Your task to perform on an android device: change the clock style Image 0: 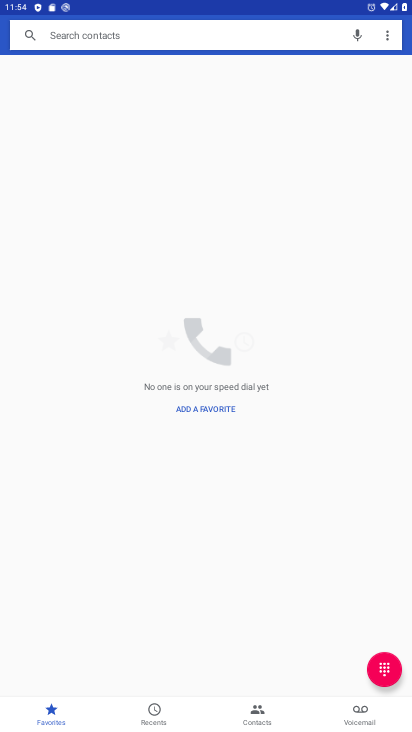
Step 0: press home button
Your task to perform on an android device: change the clock style Image 1: 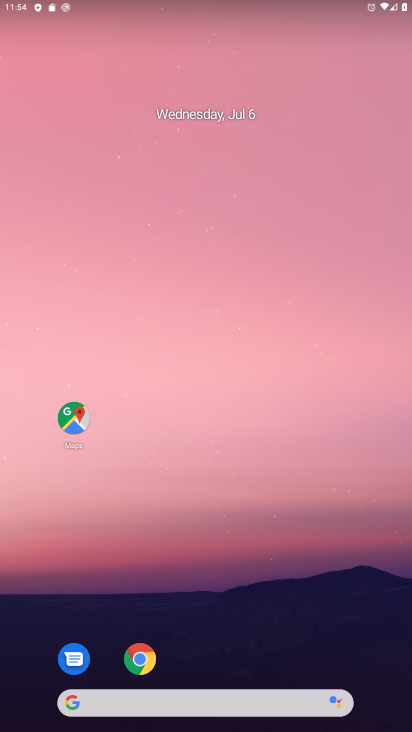
Step 1: drag from (228, 583) to (210, 252)
Your task to perform on an android device: change the clock style Image 2: 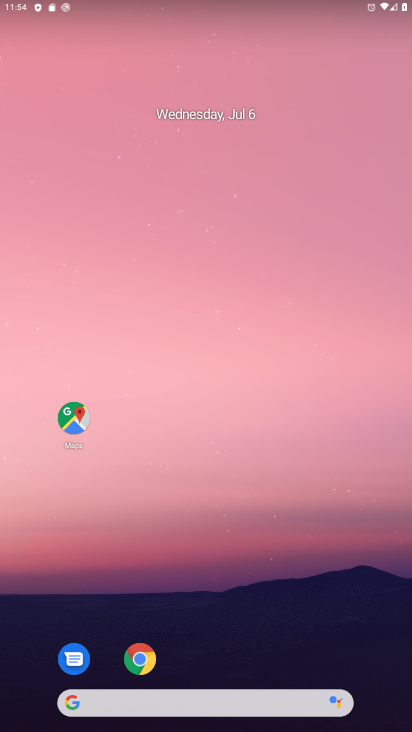
Step 2: drag from (201, 645) to (257, 41)
Your task to perform on an android device: change the clock style Image 3: 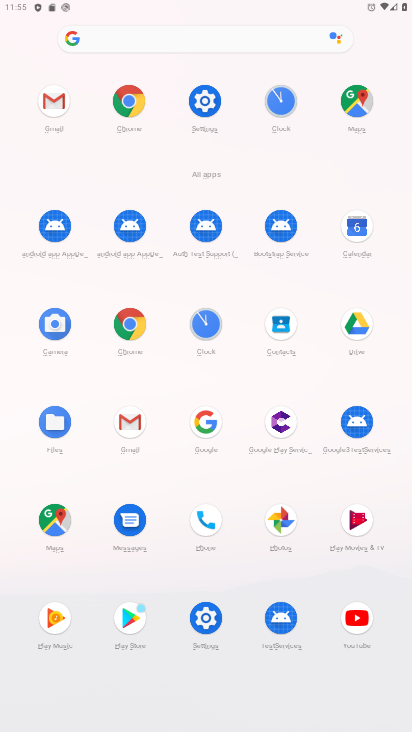
Step 3: click (206, 331)
Your task to perform on an android device: change the clock style Image 4: 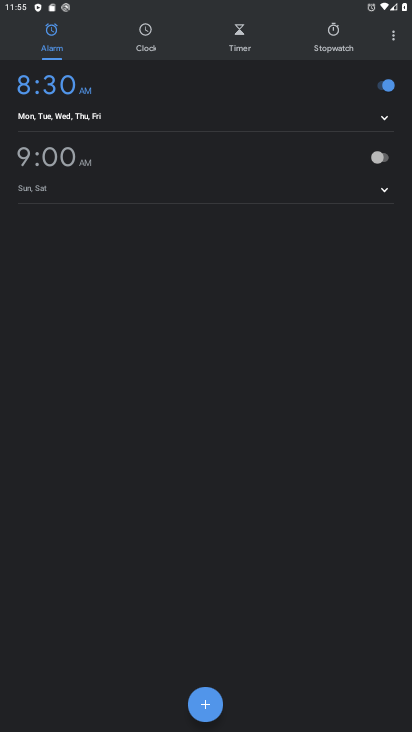
Step 4: click (389, 40)
Your task to perform on an android device: change the clock style Image 5: 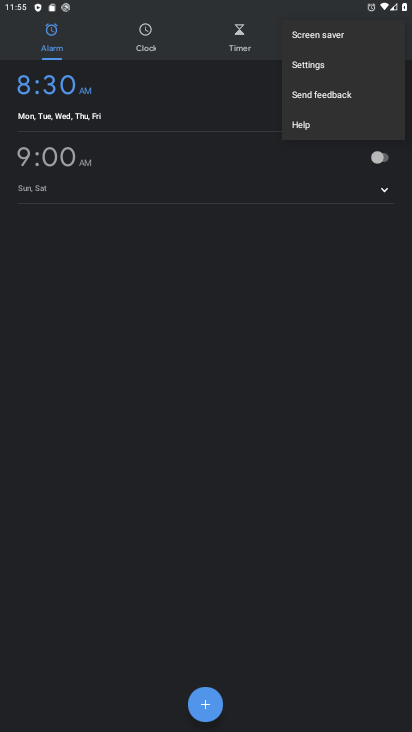
Step 5: click (330, 67)
Your task to perform on an android device: change the clock style Image 6: 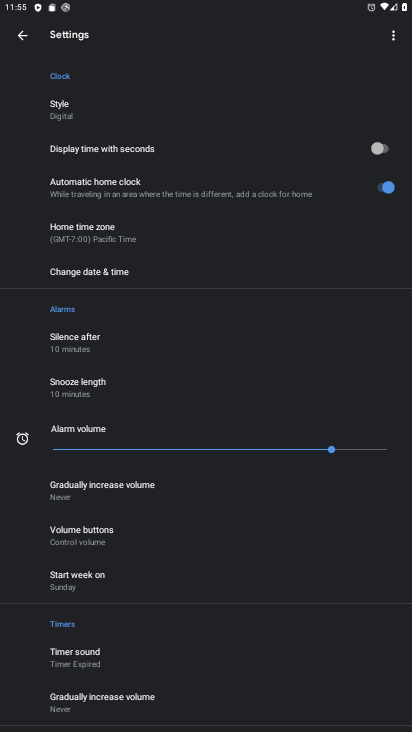
Step 6: click (82, 117)
Your task to perform on an android device: change the clock style Image 7: 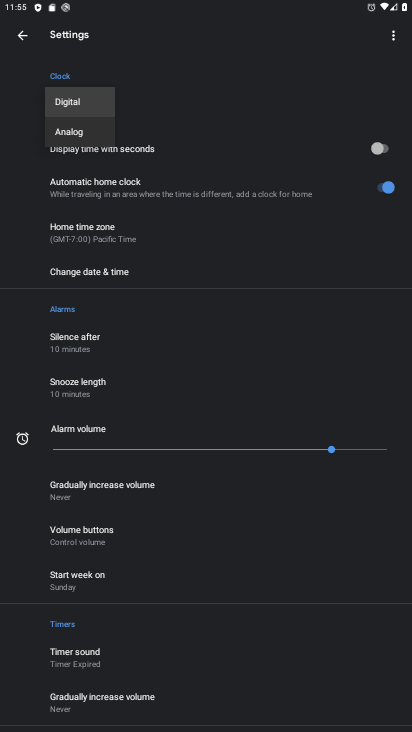
Step 7: click (78, 140)
Your task to perform on an android device: change the clock style Image 8: 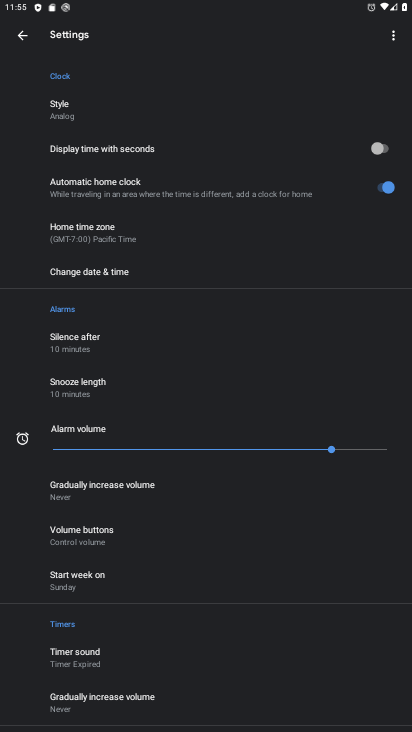
Step 8: task complete